Your task to perform on an android device: Open calendar and show me the fourth week of next month Image 0: 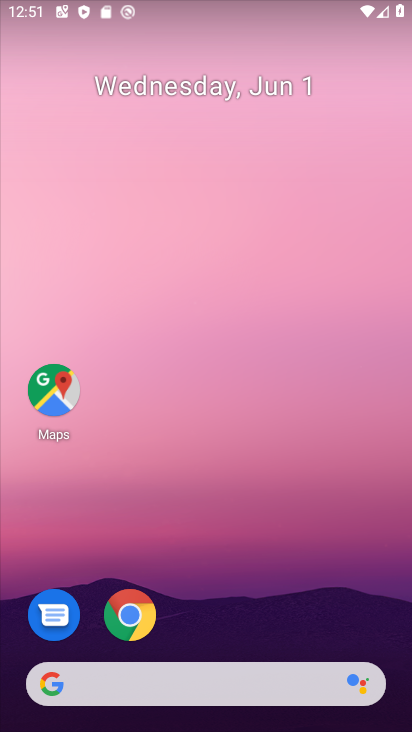
Step 0: task complete